Your task to perform on an android device: Search for sushi restaurants on Maps Image 0: 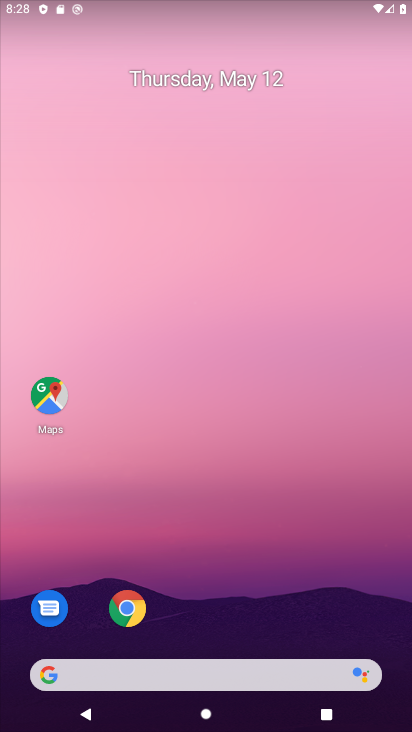
Step 0: click (49, 400)
Your task to perform on an android device: Search for sushi restaurants on Maps Image 1: 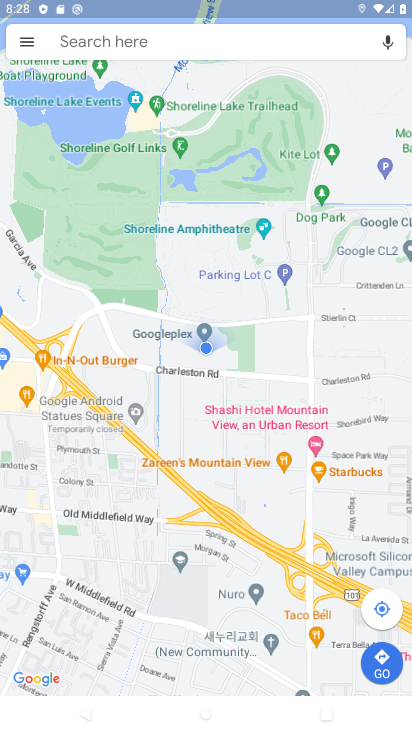
Step 1: click (182, 36)
Your task to perform on an android device: Search for sushi restaurants on Maps Image 2: 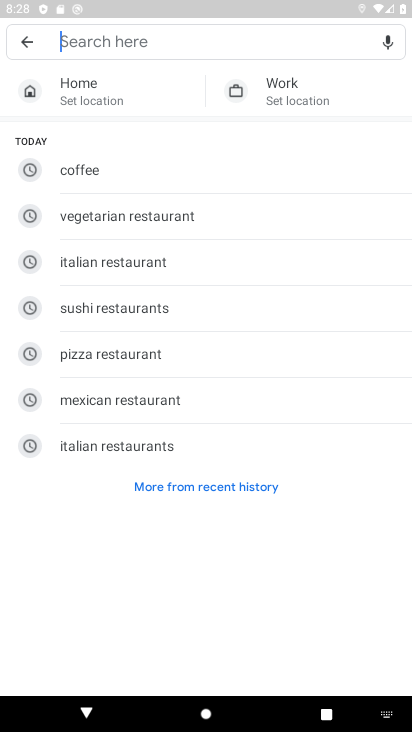
Step 2: type "sushi restaurants"
Your task to perform on an android device: Search for sushi restaurants on Maps Image 3: 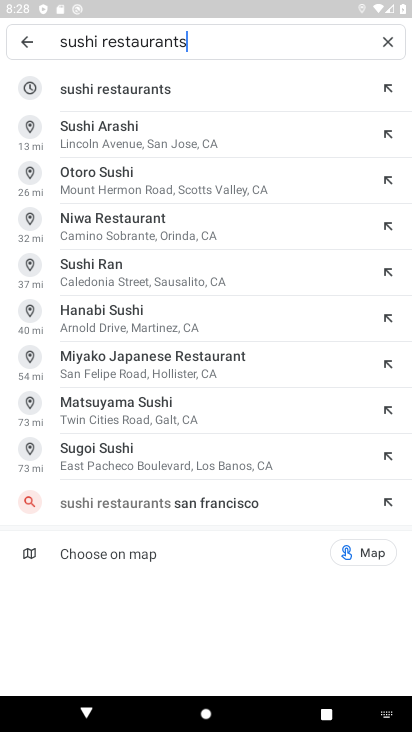
Step 3: click (200, 96)
Your task to perform on an android device: Search for sushi restaurants on Maps Image 4: 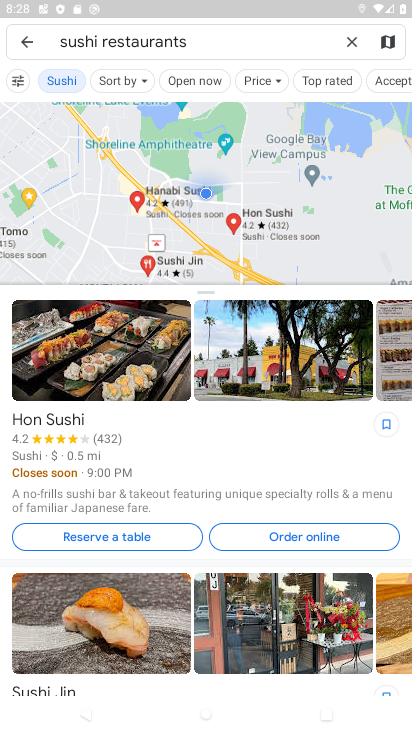
Step 4: task complete